Your task to perform on an android device: Open Chrome and go to settings Image 0: 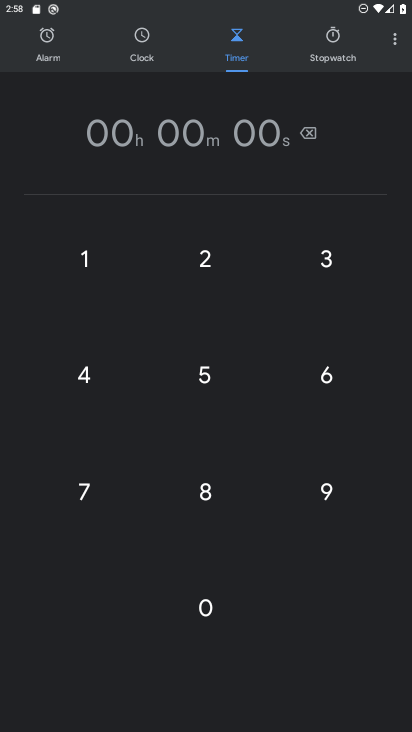
Step 0: press home button
Your task to perform on an android device: Open Chrome and go to settings Image 1: 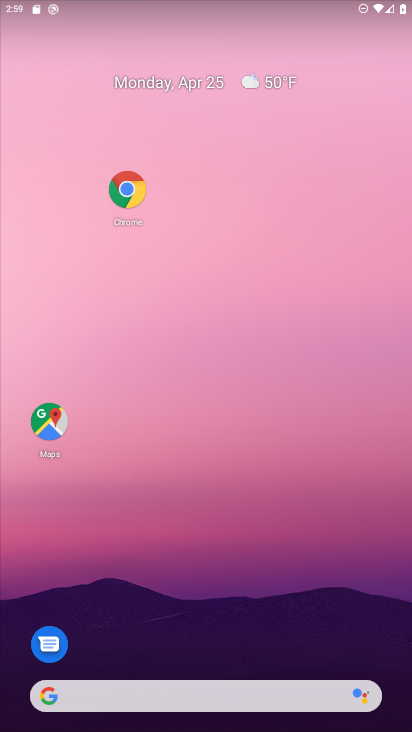
Step 1: click (120, 192)
Your task to perform on an android device: Open Chrome and go to settings Image 2: 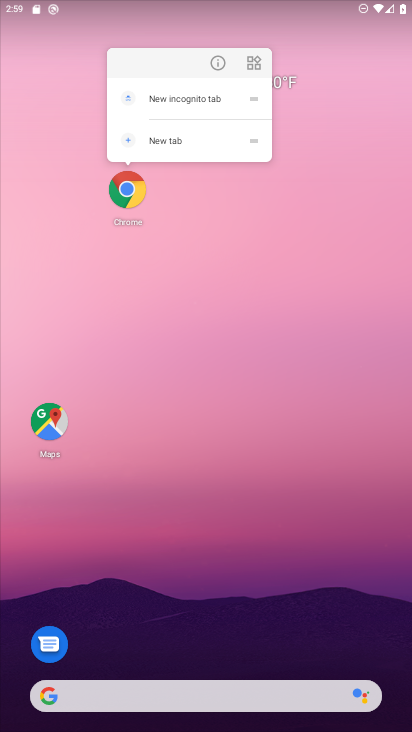
Step 2: click (220, 64)
Your task to perform on an android device: Open Chrome and go to settings Image 3: 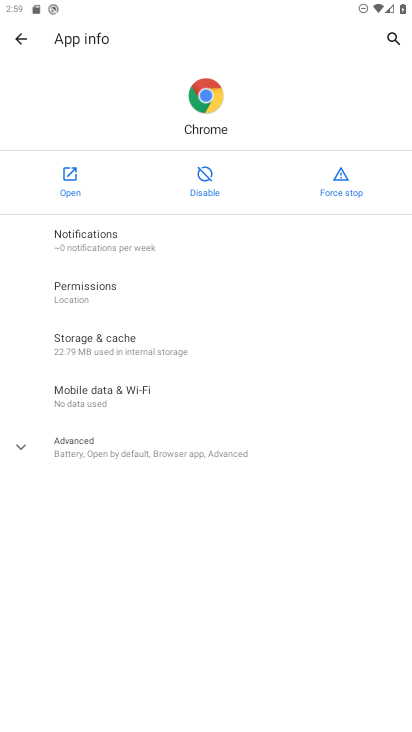
Step 3: click (72, 187)
Your task to perform on an android device: Open Chrome and go to settings Image 4: 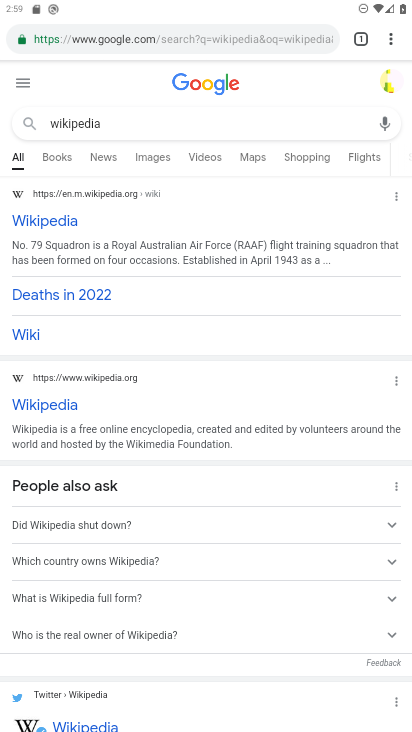
Step 4: click (391, 32)
Your task to perform on an android device: Open Chrome and go to settings Image 5: 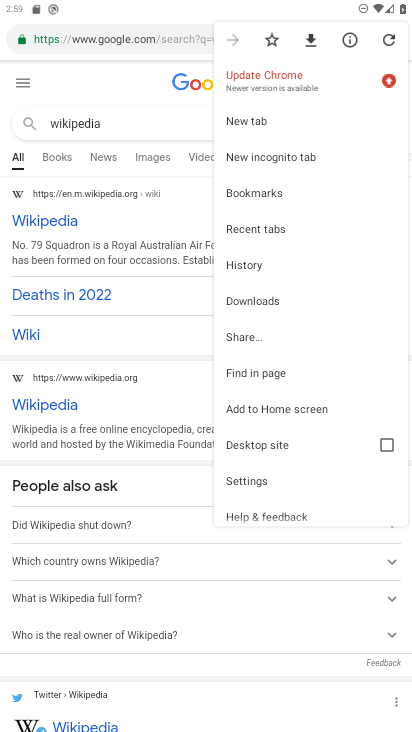
Step 5: click (248, 477)
Your task to perform on an android device: Open Chrome and go to settings Image 6: 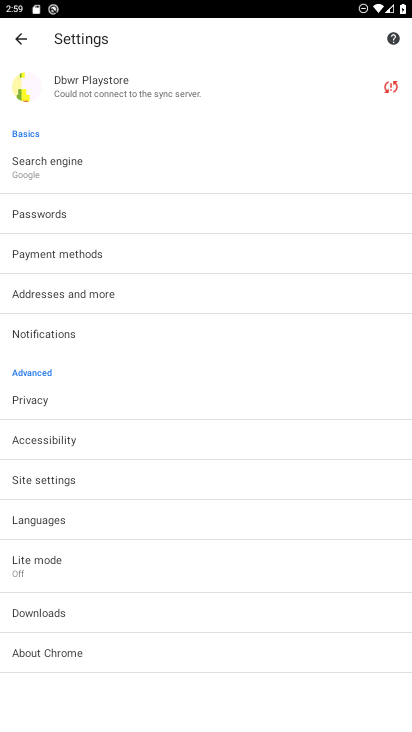
Step 6: task complete